Your task to perform on an android device: turn on notifications settings in the gmail app Image 0: 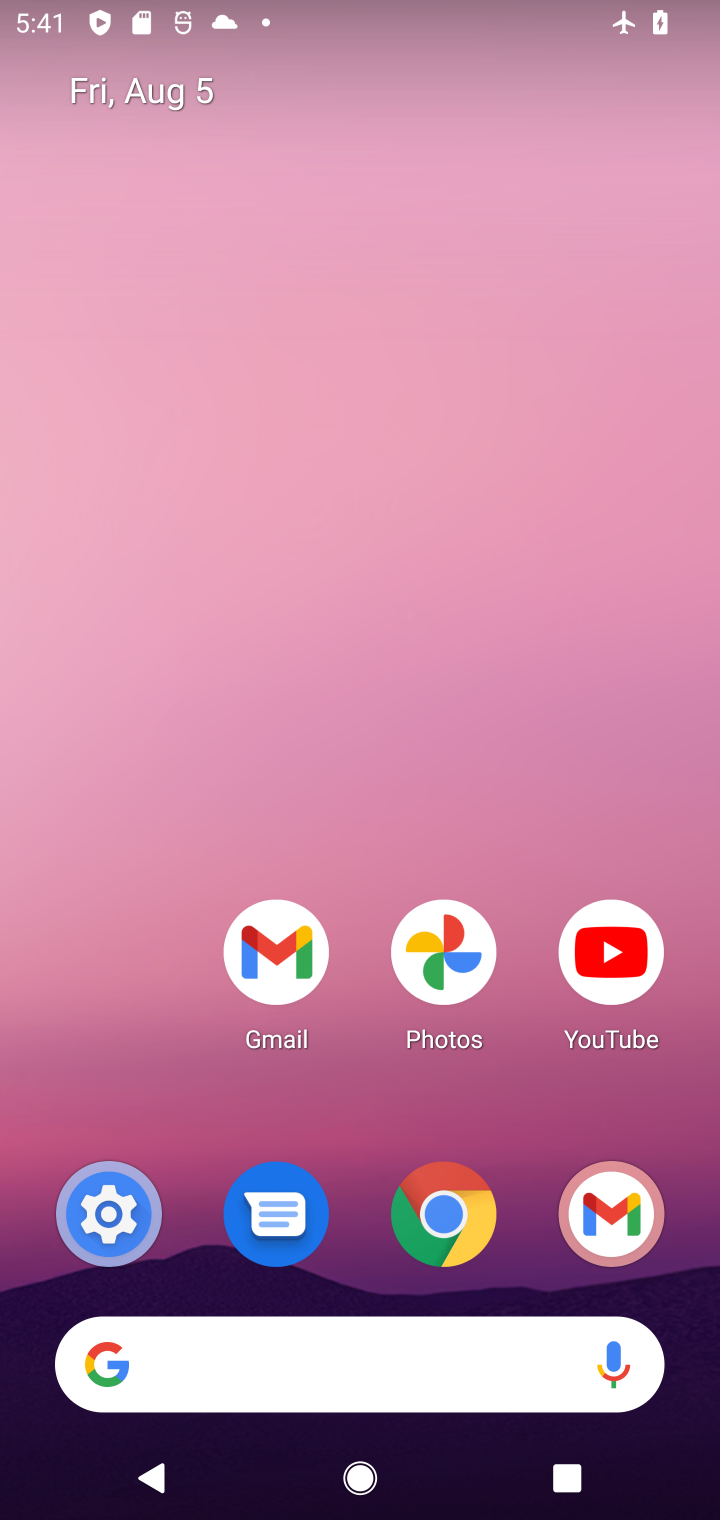
Step 0: click (256, 935)
Your task to perform on an android device: turn on notifications settings in the gmail app Image 1: 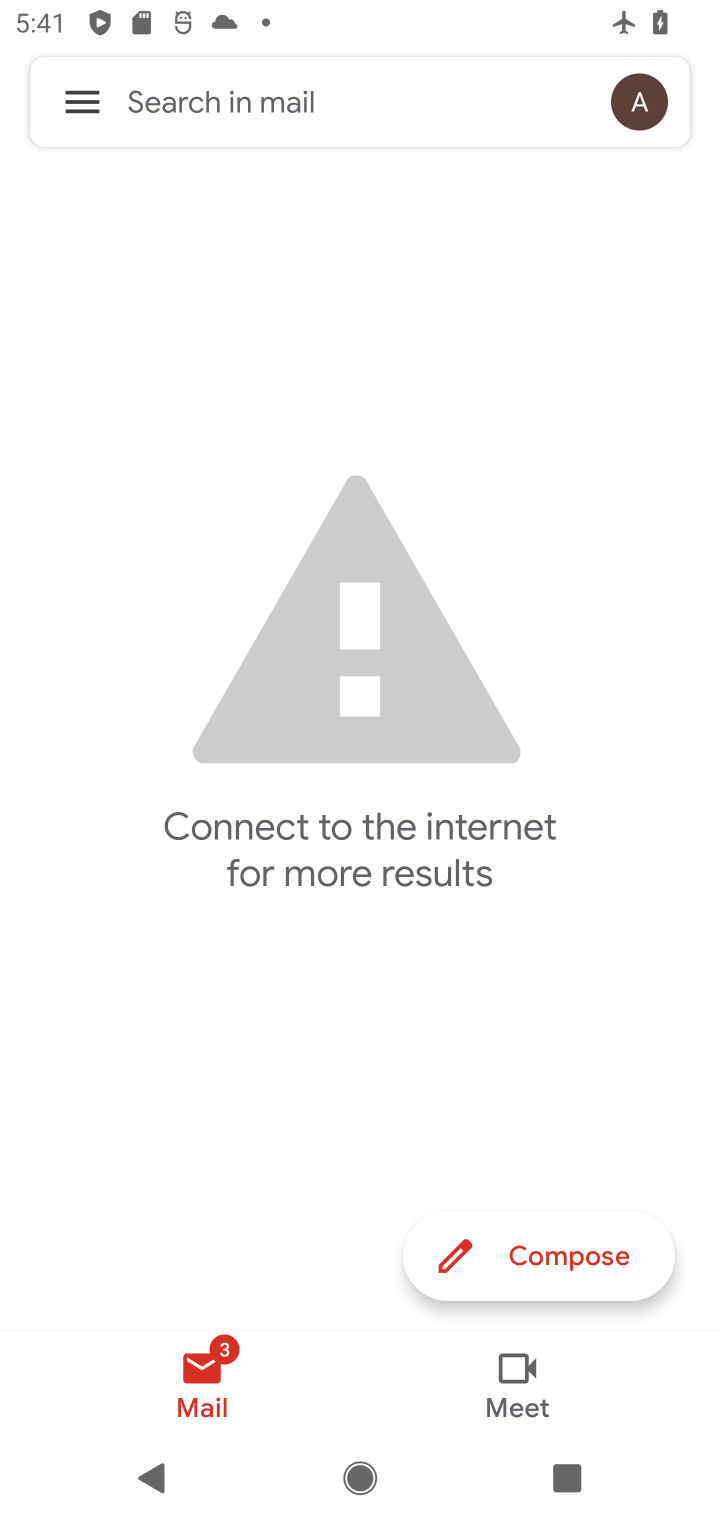
Step 1: click (72, 95)
Your task to perform on an android device: turn on notifications settings in the gmail app Image 2: 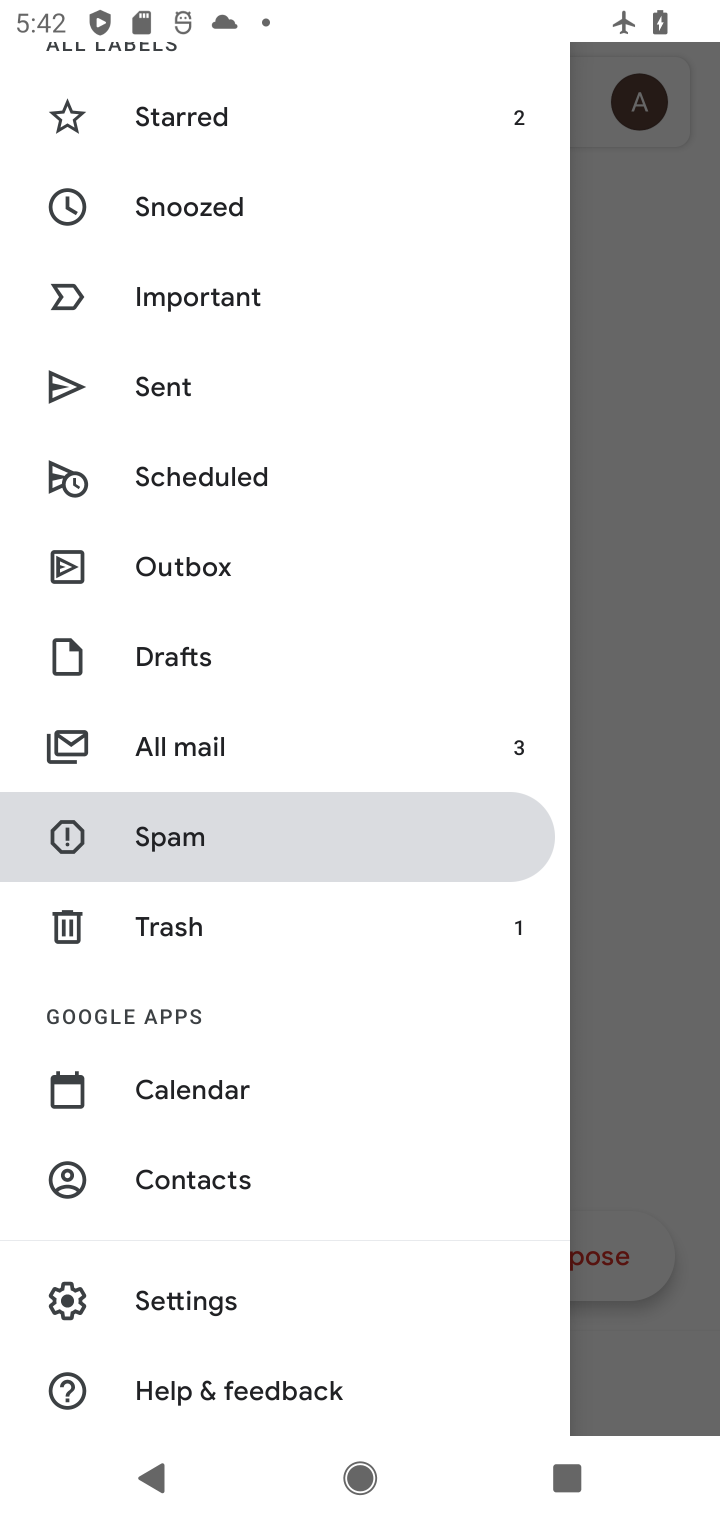
Step 2: click (226, 1300)
Your task to perform on an android device: turn on notifications settings in the gmail app Image 3: 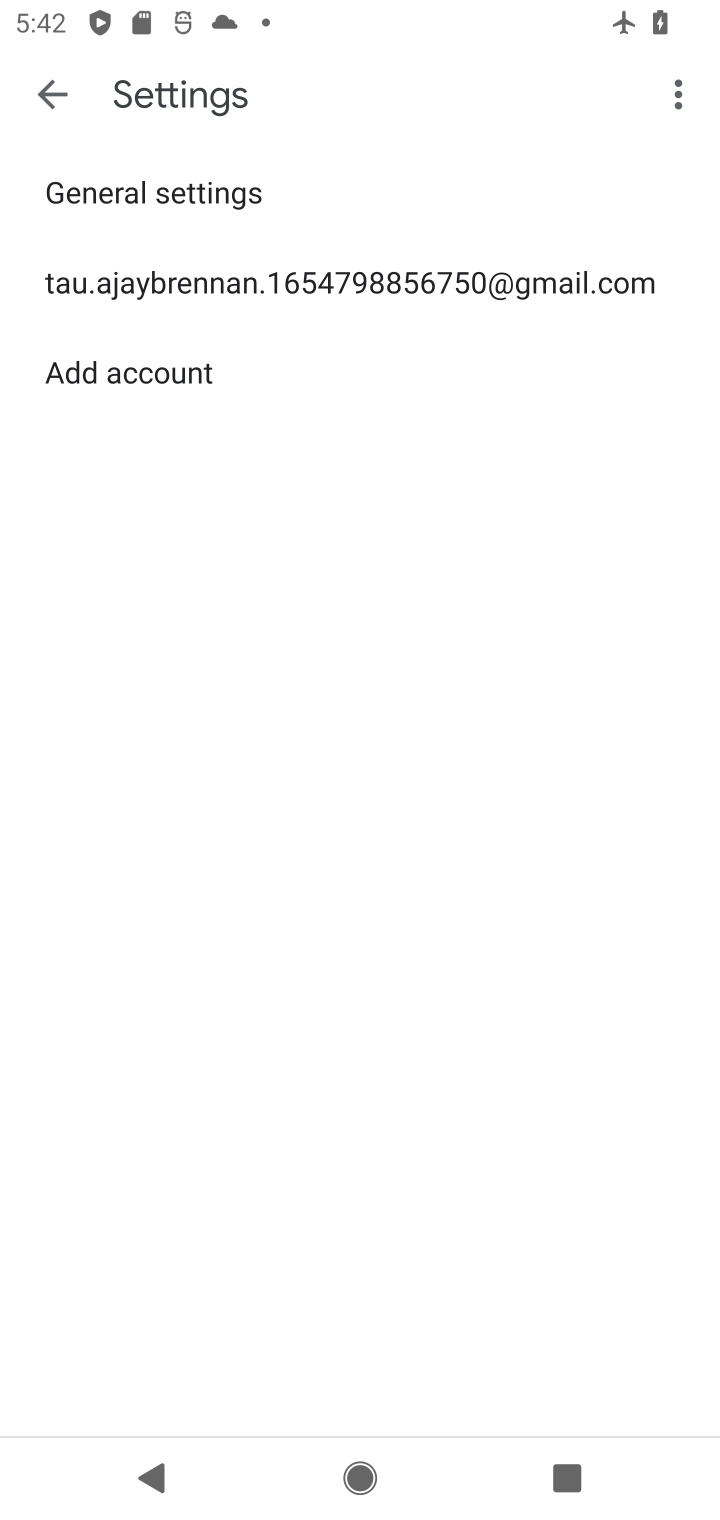
Step 3: click (441, 268)
Your task to perform on an android device: turn on notifications settings in the gmail app Image 4: 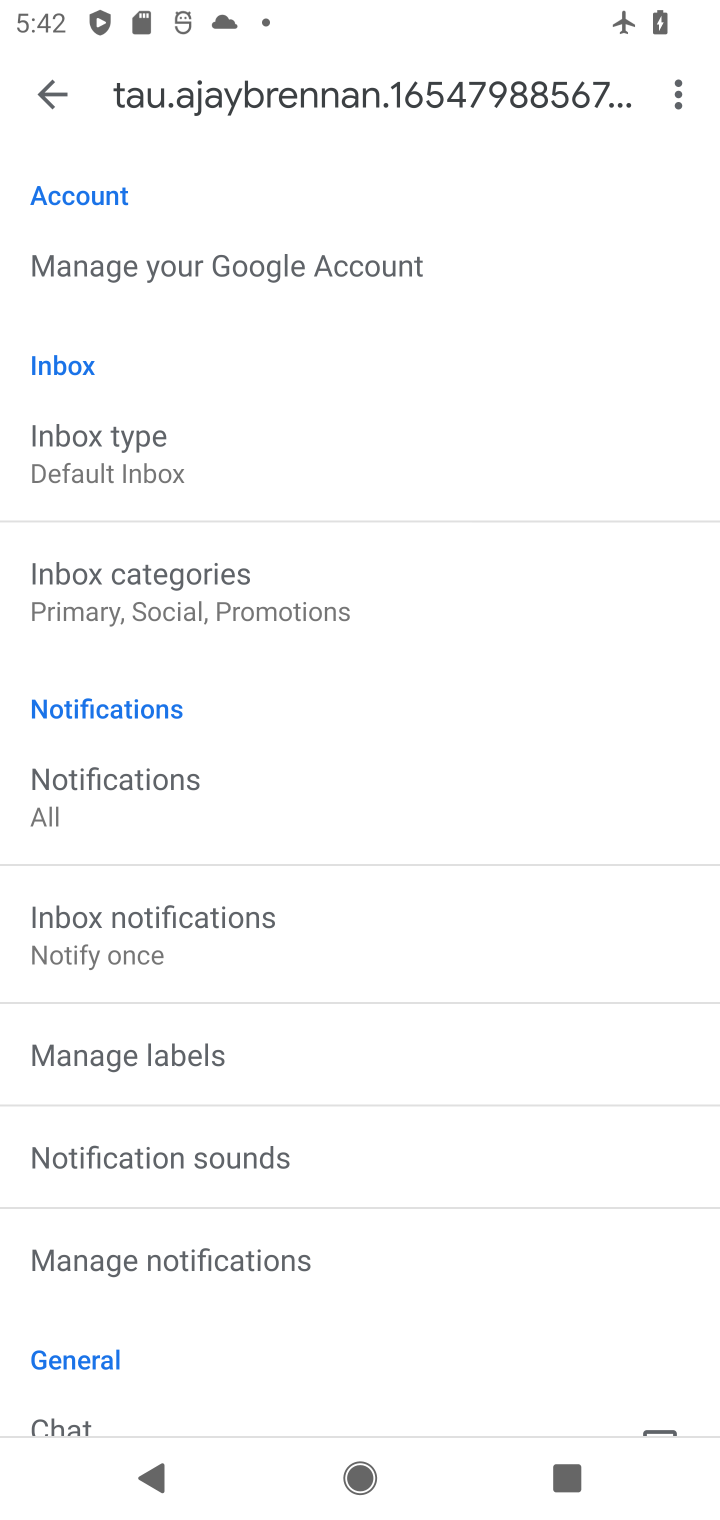
Step 4: click (357, 1248)
Your task to perform on an android device: turn on notifications settings in the gmail app Image 5: 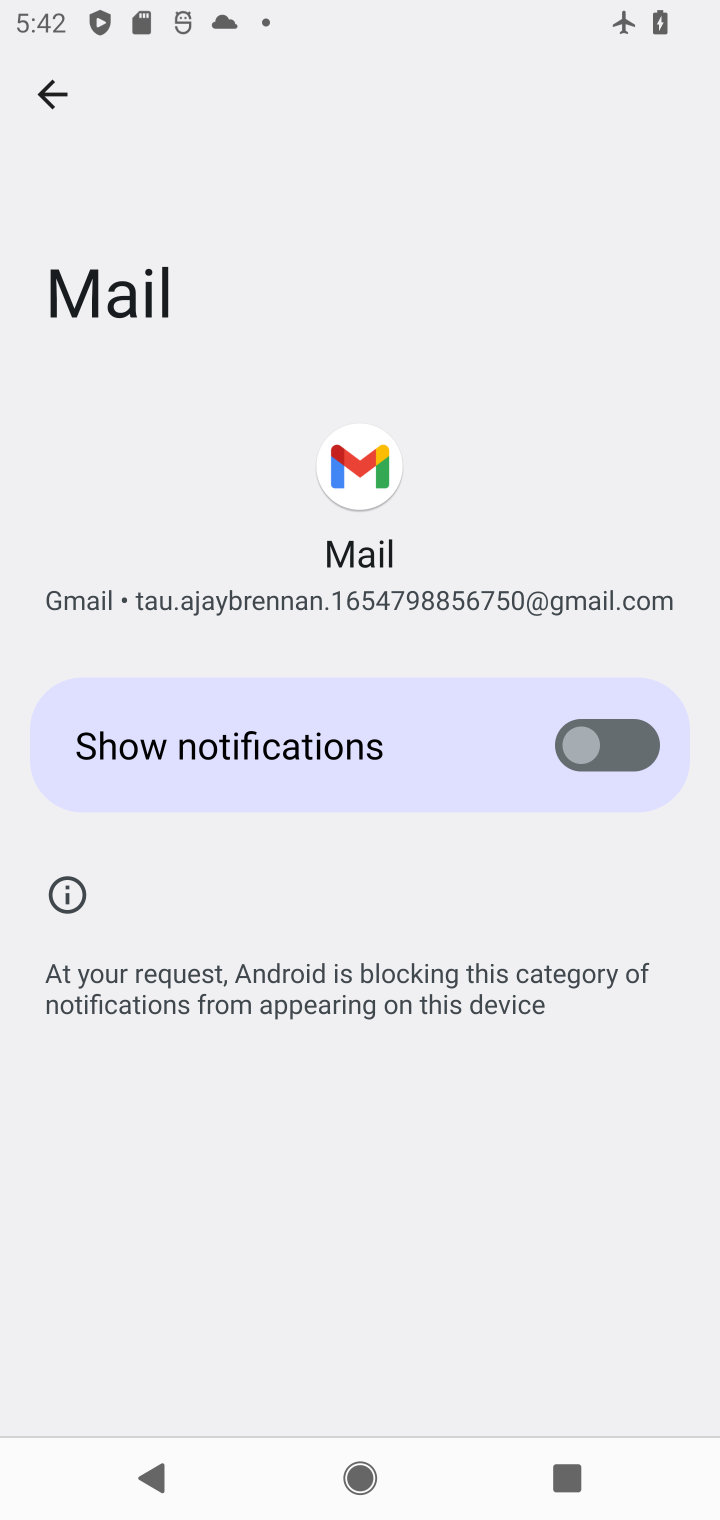
Step 5: click (612, 746)
Your task to perform on an android device: turn on notifications settings in the gmail app Image 6: 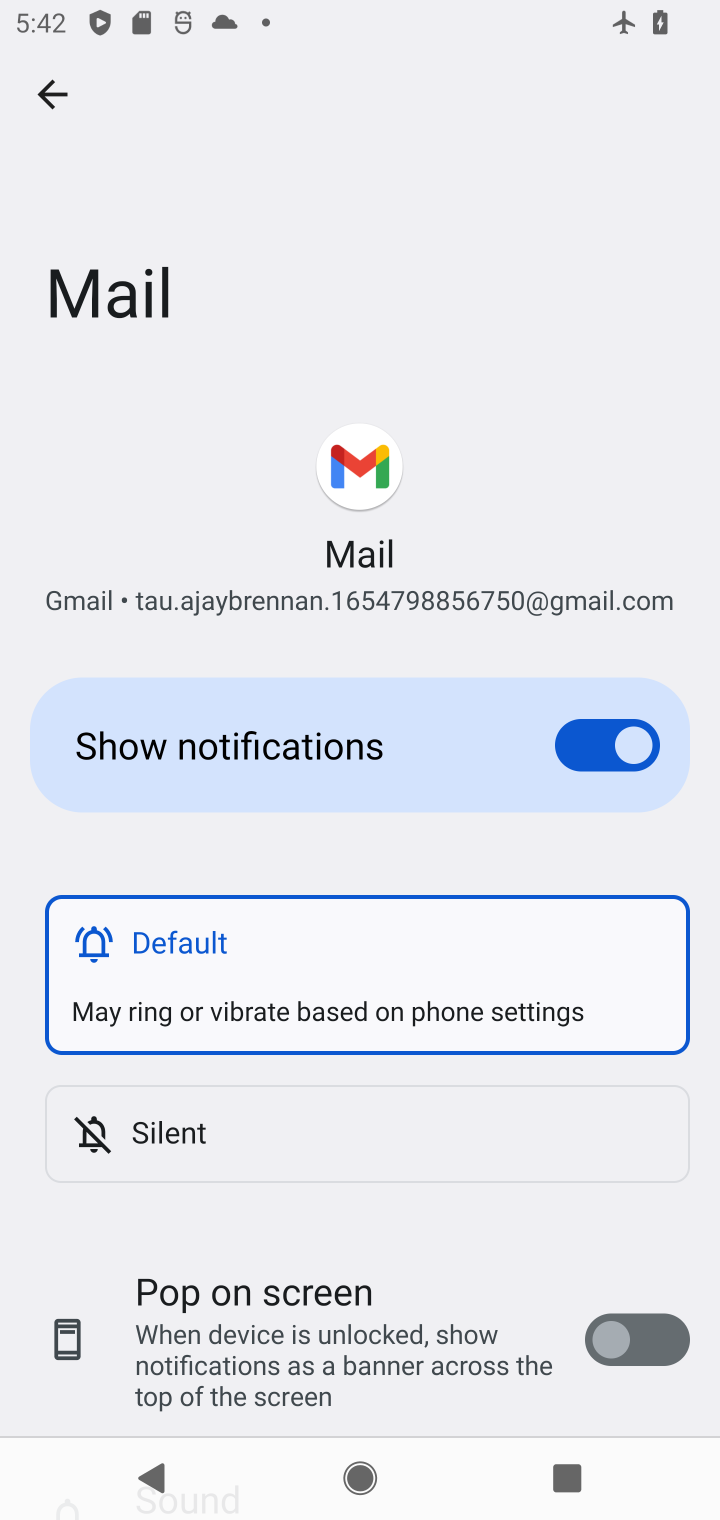
Step 6: task complete